Your task to perform on an android device: empty trash in the gmail app Image 0: 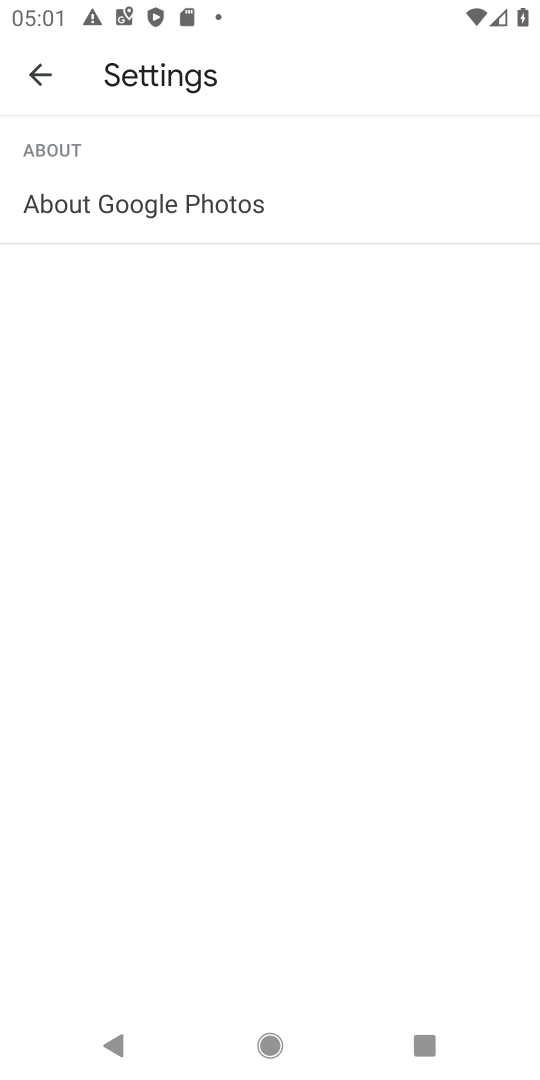
Step 0: click (30, 69)
Your task to perform on an android device: empty trash in the gmail app Image 1: 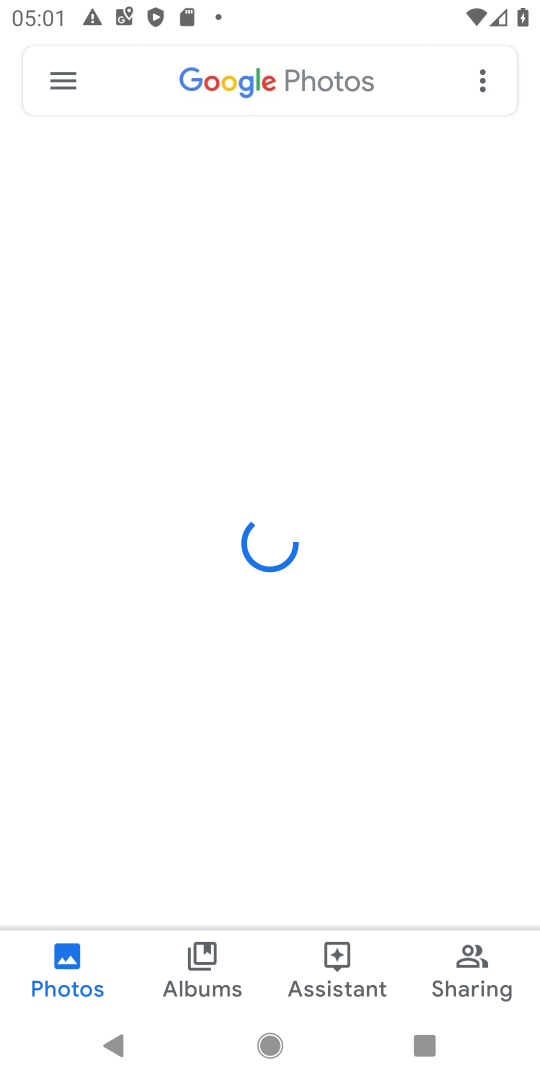
Step 1: click (61, 75)
Your task to perform on an android device: empty trash in the gmail app Image 2: 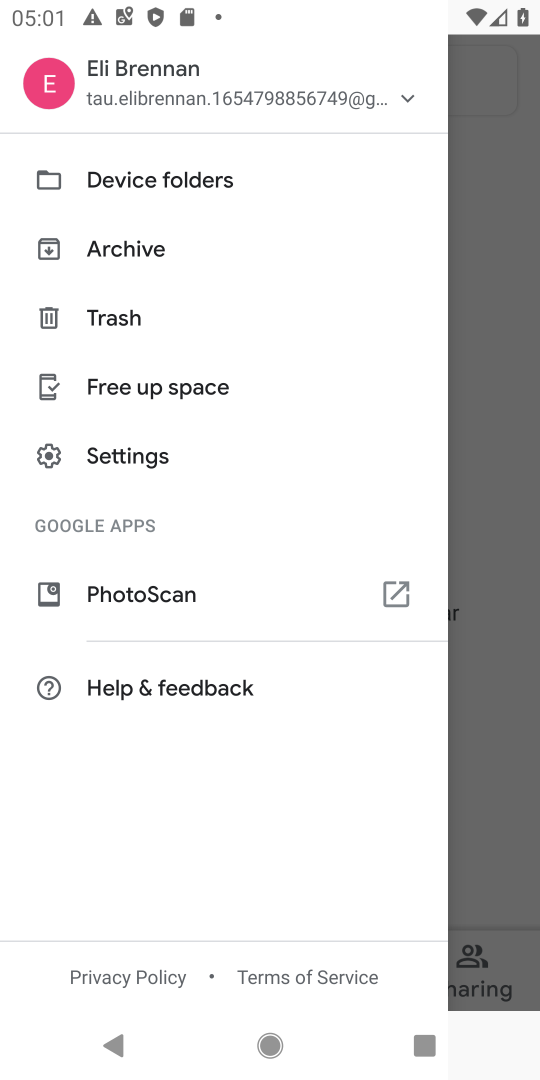
Step 2: click (102, 320)
Your task to perform on an android device: empty trash in the gmail app Image 3: 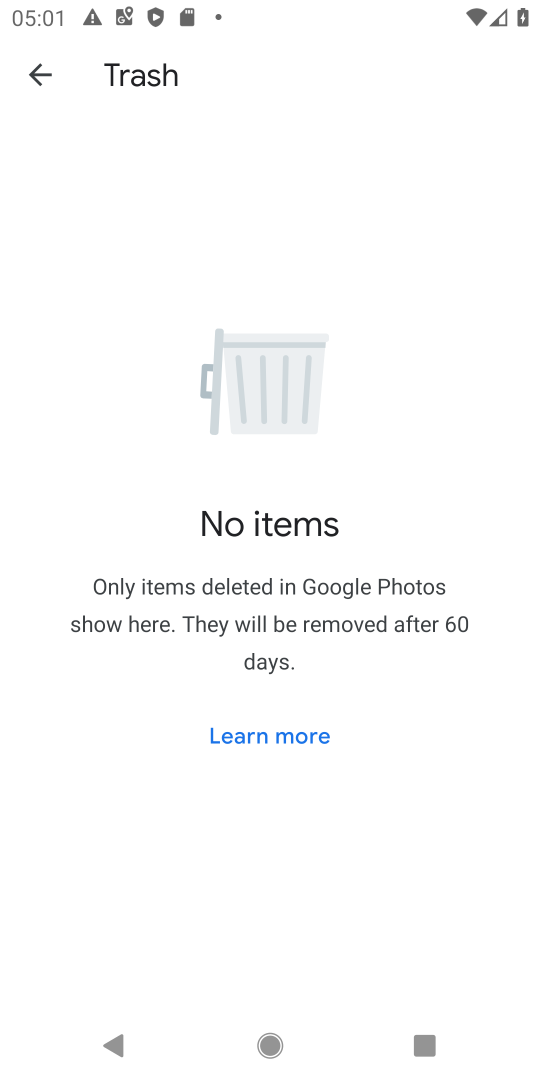
Step 3: task complete